Your task to perform on an android device: Open privacy settings Image 0: 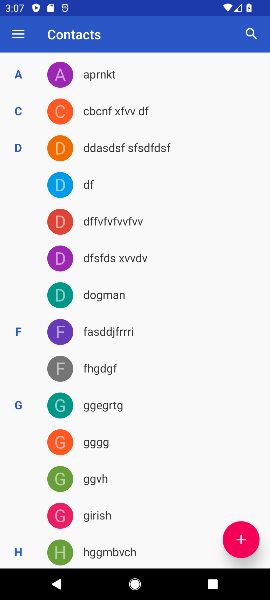
Step 0: press back button
Your task to perform on an android device: Open privacy settings Image 1: 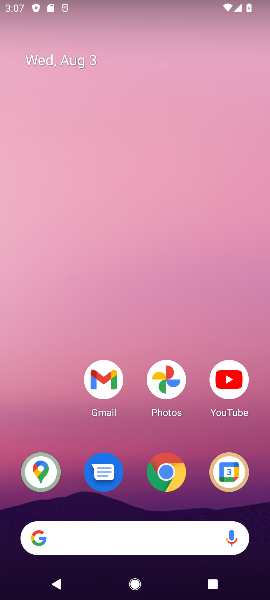
Step 1: drag from (75, 419) to (127, 9)
Your task to perform on an android device: Open privacy settings Image 2: 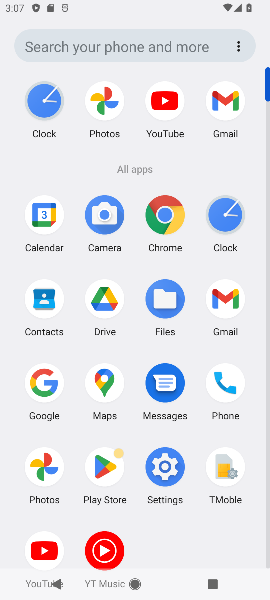
Step 2: click (163, 471)
Your task to perform on an android device: Open privacy settings Image 3: 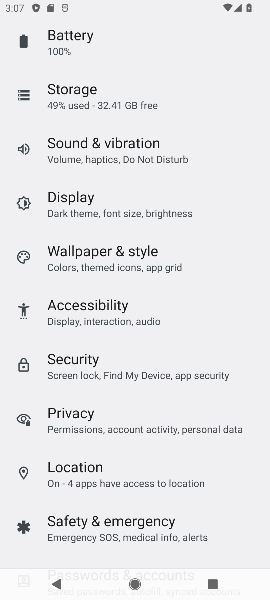
Step 3: click (82, 422)
Your task to perform on an android device: Open privacy settings Image 4: 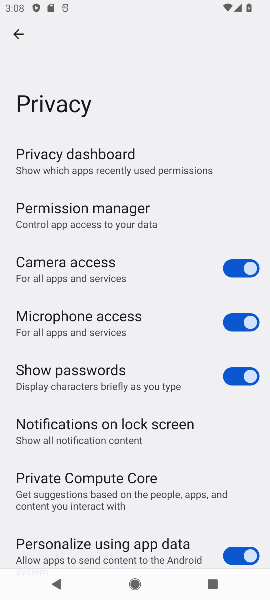
Step 4: task complete